Your task to perform on an android device: turn on the 24-hour format for clock Image 0: 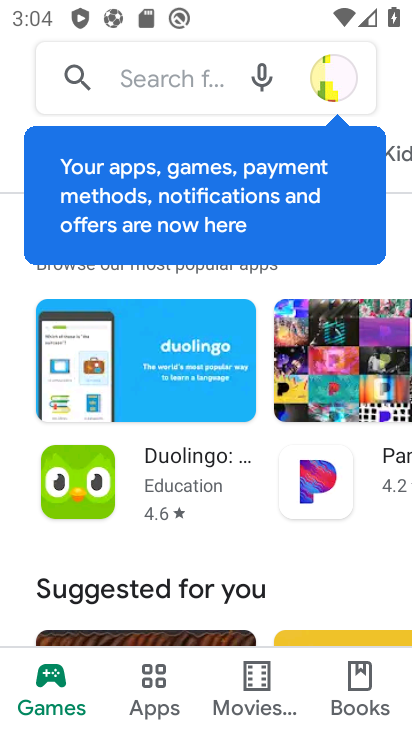
Step 0: press home button
Your task to perform on an android device: turn on the 24-hour format for clock Image 1: 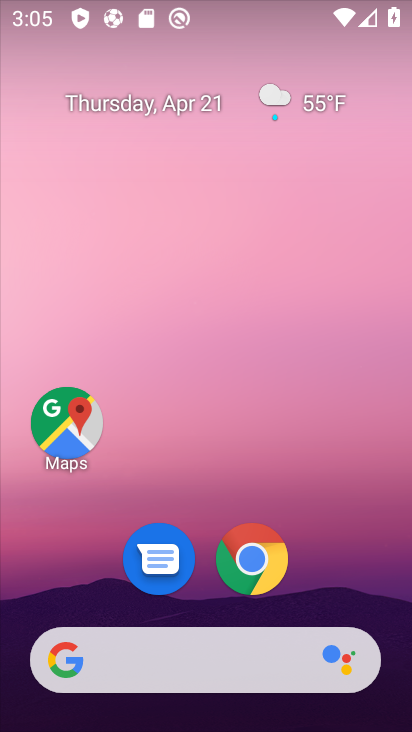
Step 1: drag from (338, 570) to (299, 160)
Your task to perform on an android device: turn on the 24-hour format for clock Image 2: 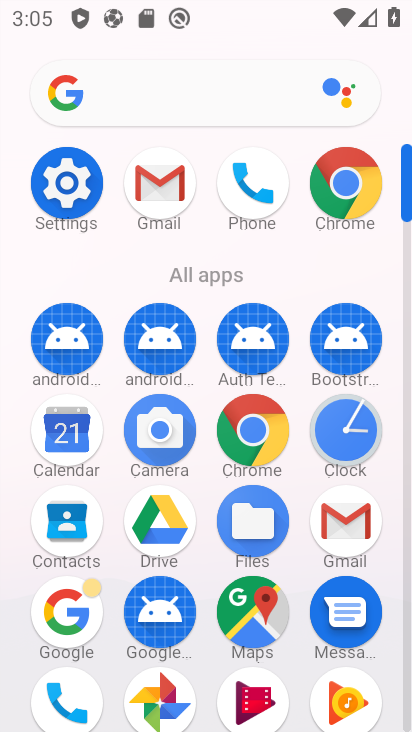
Step 2: drag from (306, 255) to (304, 136)
Your task to perform on an android device: turn on the 24-hour format for clock Image 3: 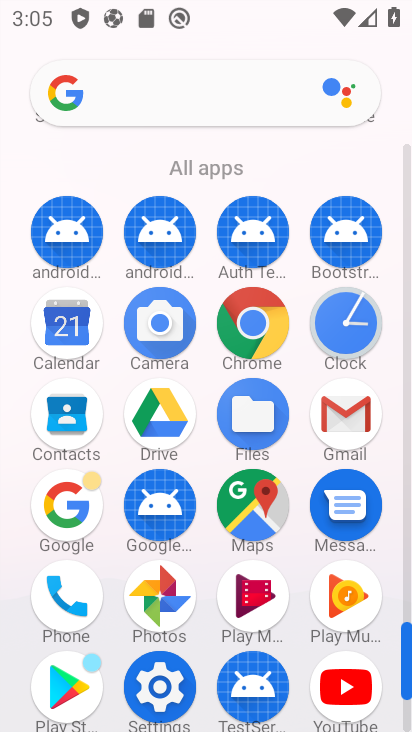
Step 3: click (174, 687)
Your task to perform on an android device: turn on the 24-hour format for clock Image 4: 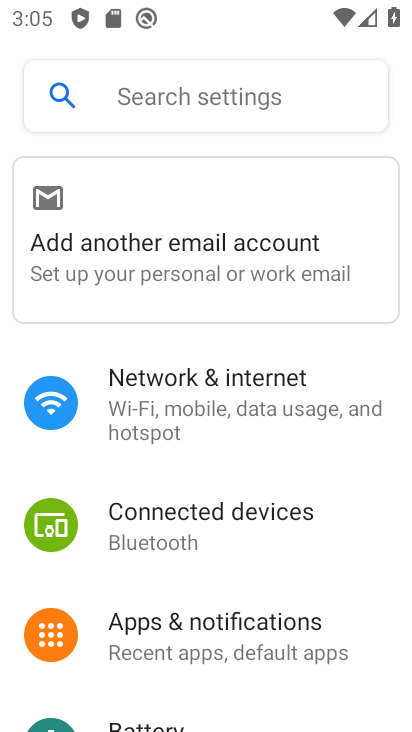
Step 4: drag from (213, 596) to (146, 162)
Your task to perform on an android device: turn on the 24-hour format for clock Image 5: 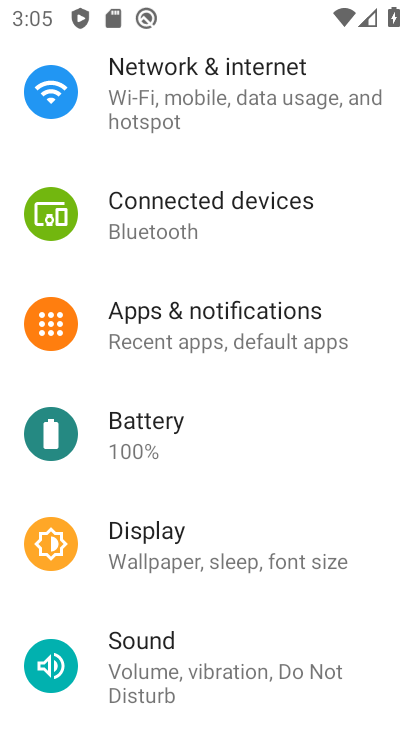
Step 5: drag from (230, 654) to (235, 173)
Your task to perform on an android device: turn on the 24-hour format for clock Image 6: 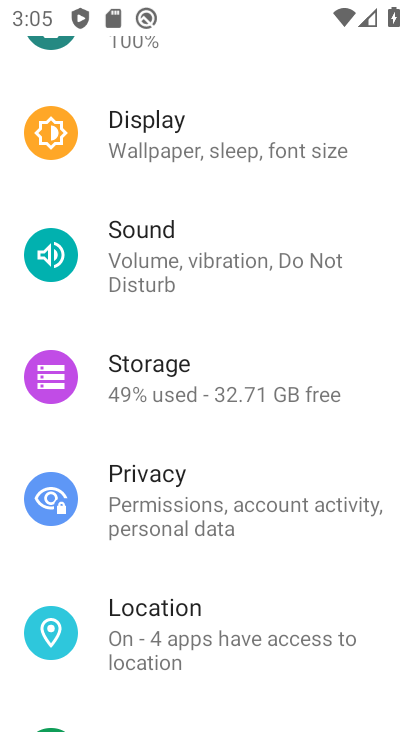
Step 6: drag from (259, 675) to (300, 219)
Your task to perform on an android device: turn on the 24-hour format for clock Image 7: 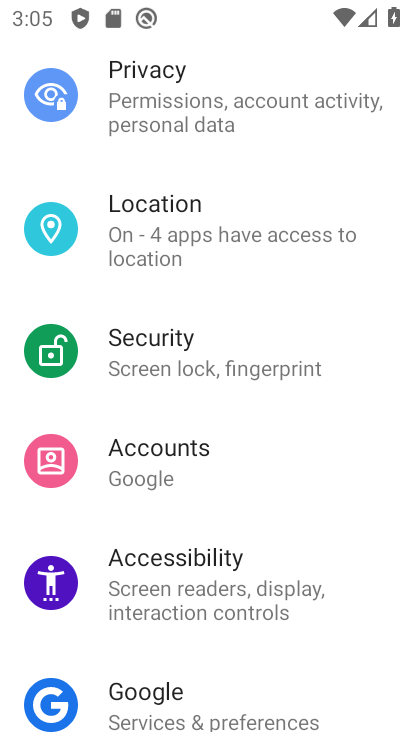
Step 7: drag from (247, 691) to (244, 225)
Your task to perform on an android device: turn on the 24-hour format for clock Image 8: 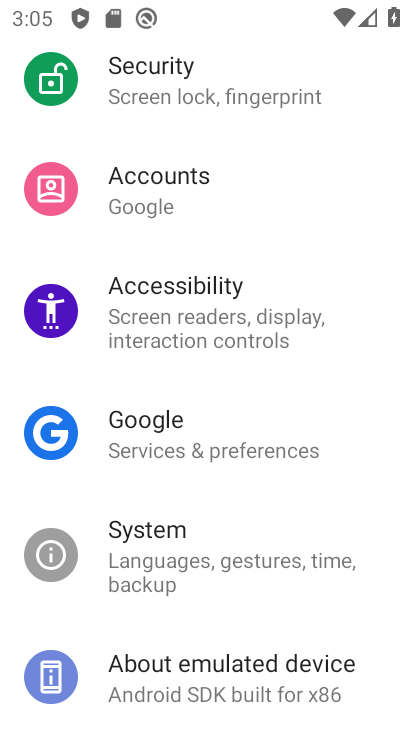
Step 8: click (200, 567)
Your task to perform on an android device: turn on the 24-hour format for clock Image 9: 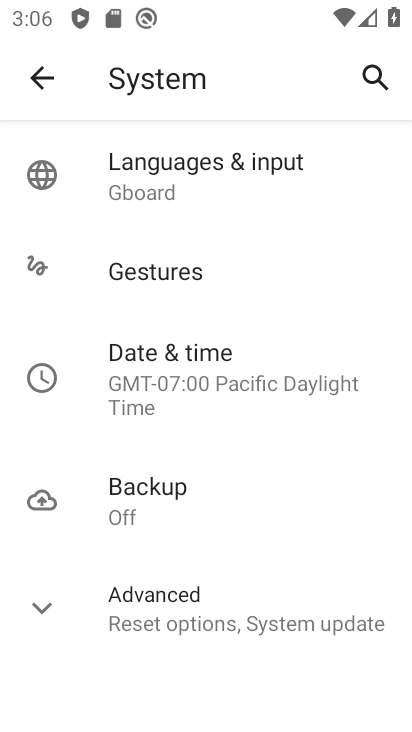
Step 9: click (175, 347)
Your task to perform on an android device: turn on the 24-hour format for clock Image 10: 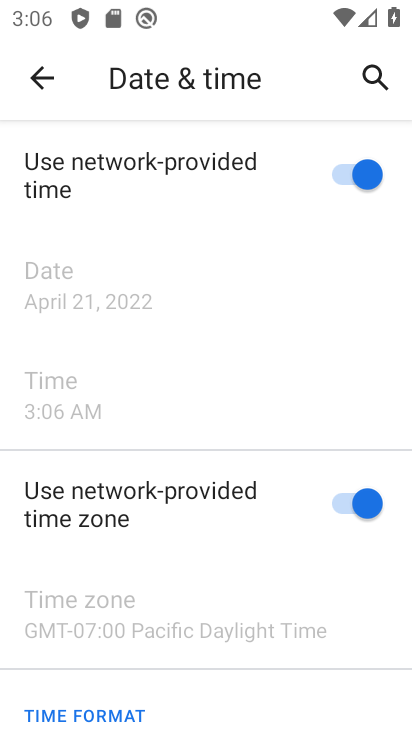
Step 10: drag from (215, 679) to (203, 210)
Your task to perform on an android device: turn on the 24-hour format for clock Image 11: 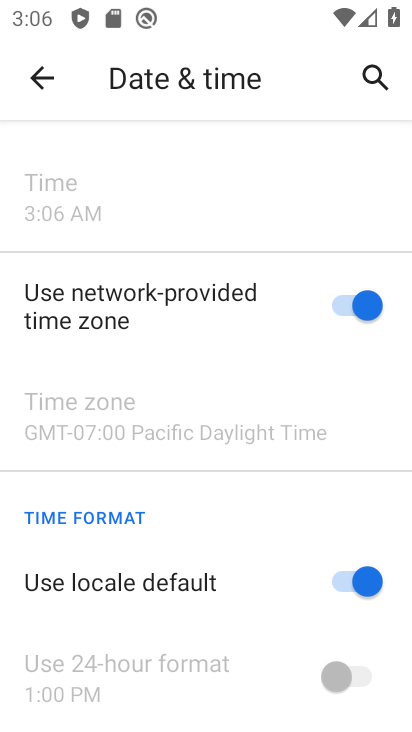
Step 11: click (364, 579)
Your task to perform on an android device: turn on the 24-hour format for clock Image 12: 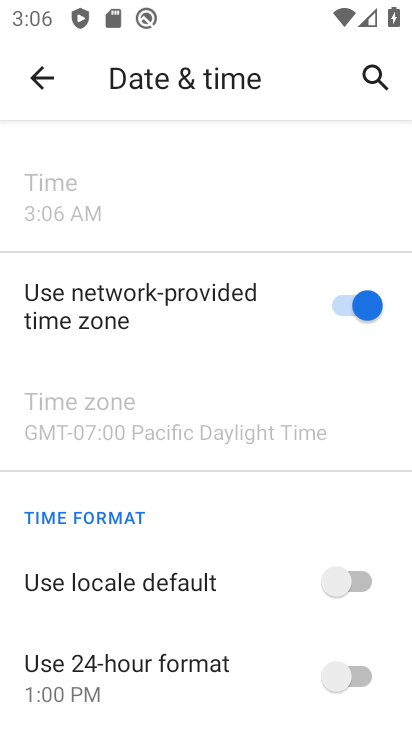
Step 12: click (341, 673)
Your task to perform on an android device: turn on the 24-hour format for clock Image 13: 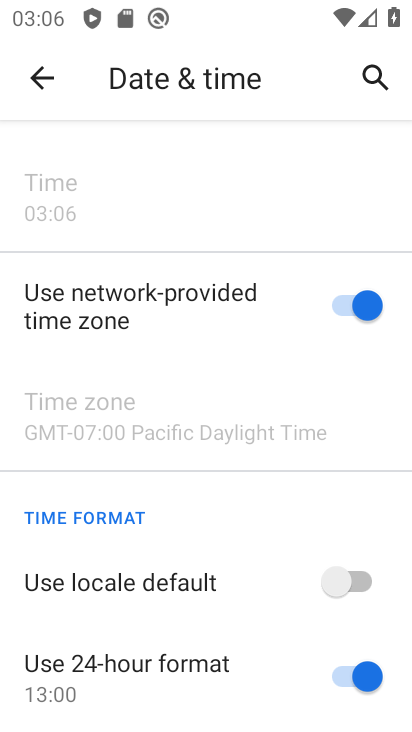
Step 13: task complete